Your task to perform on an android device: Go to network settings Image 0: 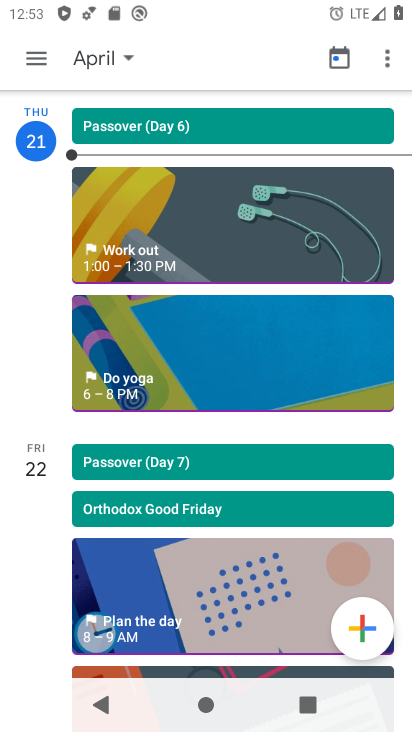
Step 0: press home button
Your task to perform on an android device: Go to network settings Image 1: 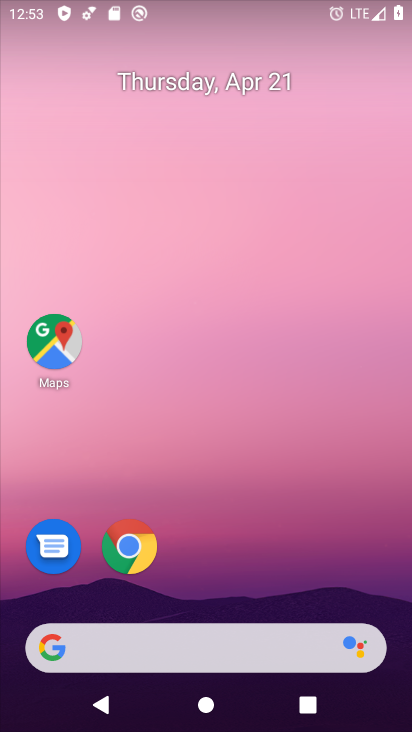
Step 1: drag from (369, 516) to (345, 104)
Your task to perform on an android device: Go to network settings Image 2: 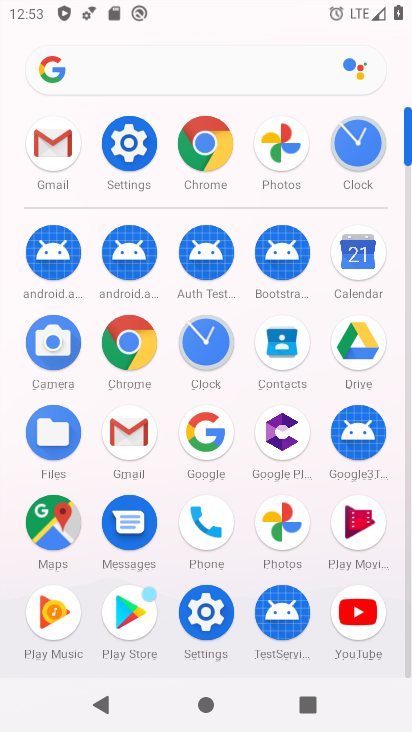
Step 2: click (117, 160)
Your task to perform on an android device: Go to network settings Image 3: 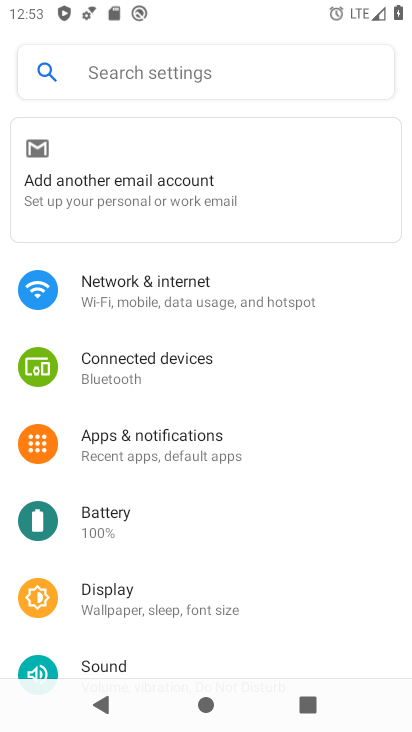
Step 3: click (152, 297)
Your task to perform on an android device: Go to network settings Image 4: 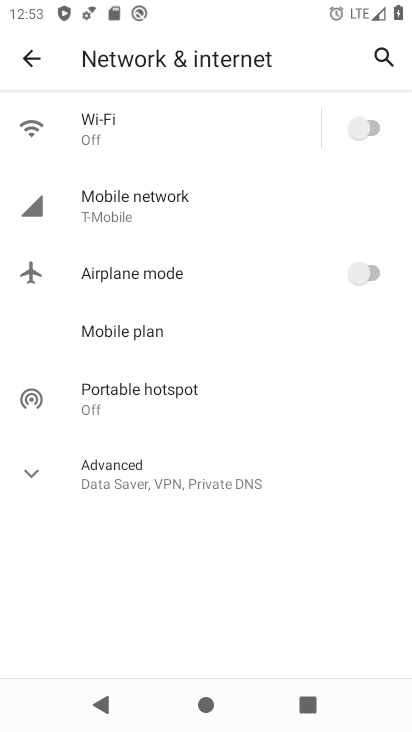
Step 4: task complete